Your task to perform on an android device: Show me popular games on the Play Store Image 0: 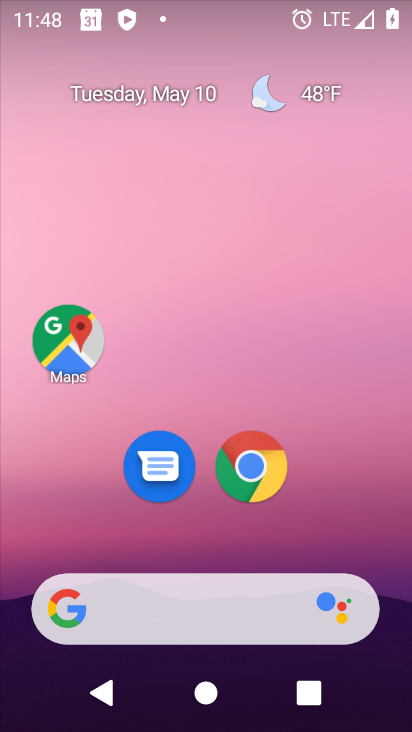
Step 0: drag from (127, 478) to (183, 133)
Your task to perform on an android device: Show me popular games on the Play Store Image 1: 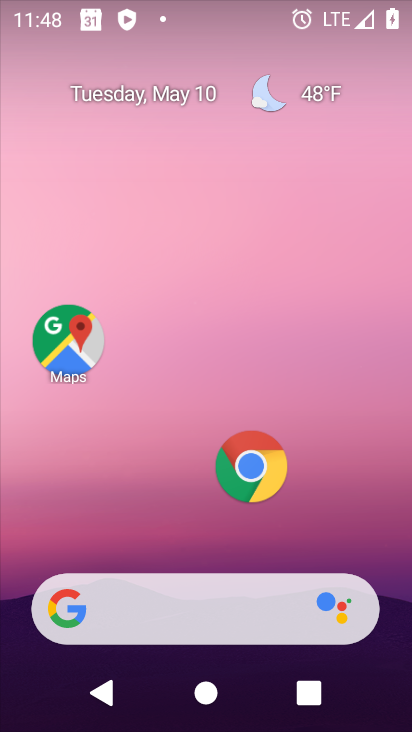
Step 1: drag from (174, 502) to (242, 118)
Your task to perform on an android device: Show me popular games on the Play Store Image 2: 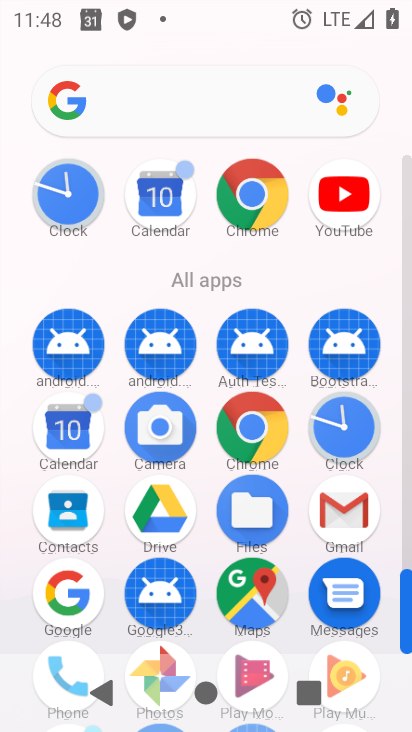
Step 2: drag from (190, 565) to (299, 70)
Your task to perform on an android device: Show me popular games on the Play Store Image 3: 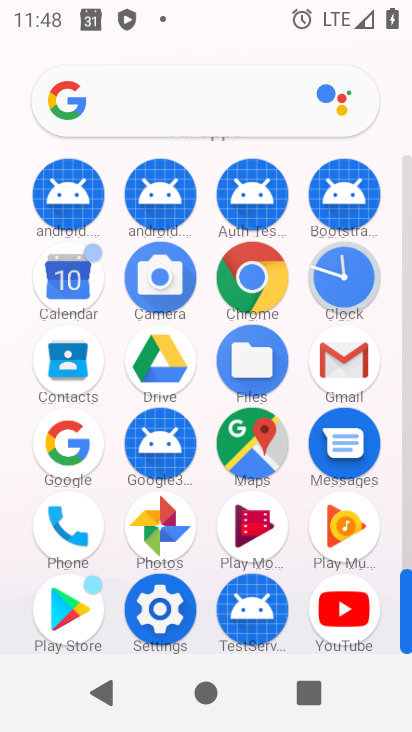
Step 3: click (70, 609)
Your task to perform on an android device: Show me popular games on the Play Store Image 4: 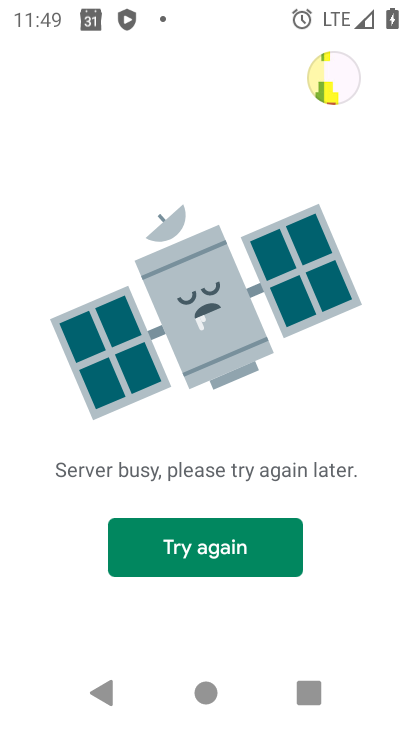
Step 4: click (197, 555)
Your task to perform on an android device: Show me popular games on the Play Store Image 5: 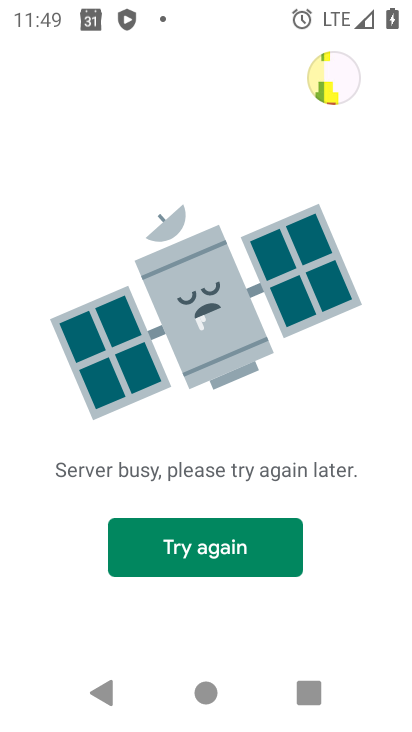
Step 5: task complete